Your task to perform on an android device: turn off improve location accuracy Image 0: 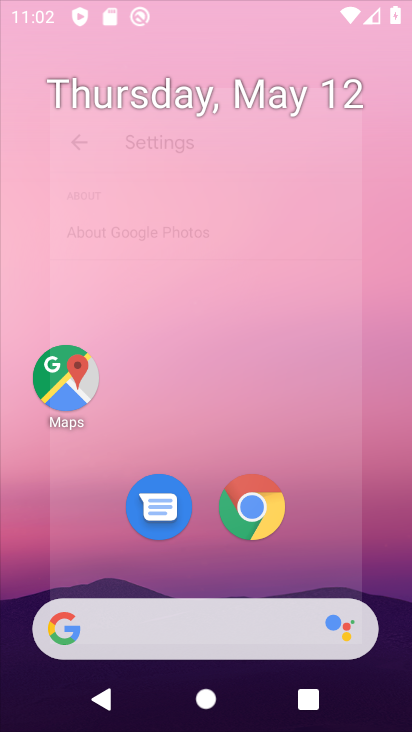
Step 0: drag from (160, 599) to (370, 53)
Your task to perform on an android device: turn off improve location accuracy Image 1: 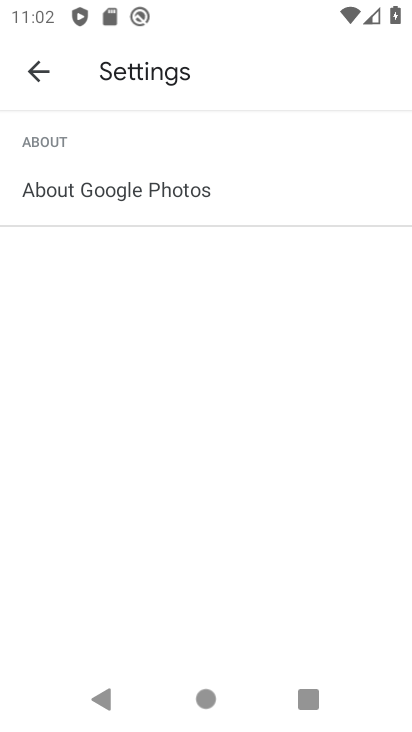
Step 1: press home button
Your task to perform on an android device: turn off improve location accuracy Image 2: 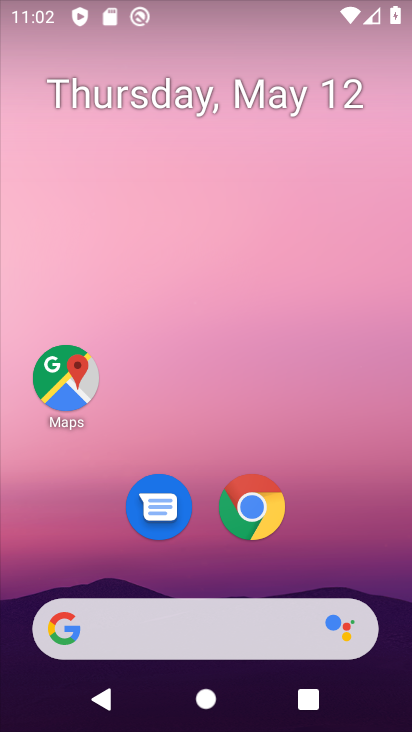
Step 2: drag from (139, 584) to (262, 44)
Your task to perform on an android device: turn off improve location accuracy Image 3: 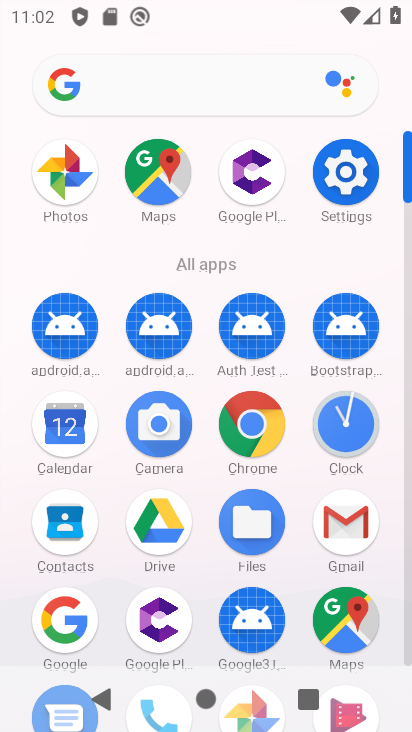
Step 3: drag from (197, 643) to (252, 306)
Your task to perform on an android device: turn off improve location accuracy Image 4: 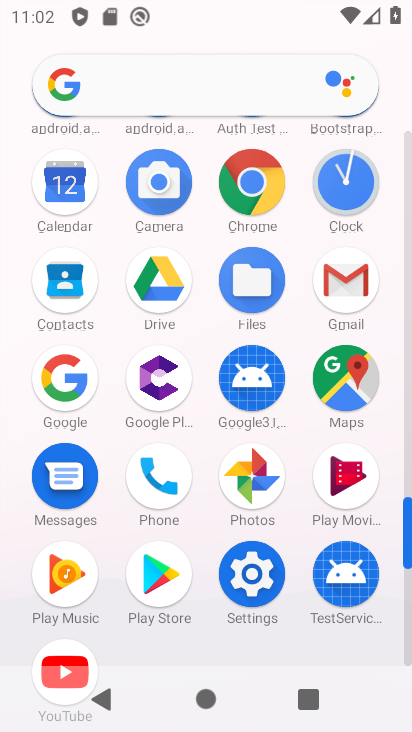
Step 4: click (259, 579)
Your task to perform on an android device: turn off improve location accuracy Image 5: 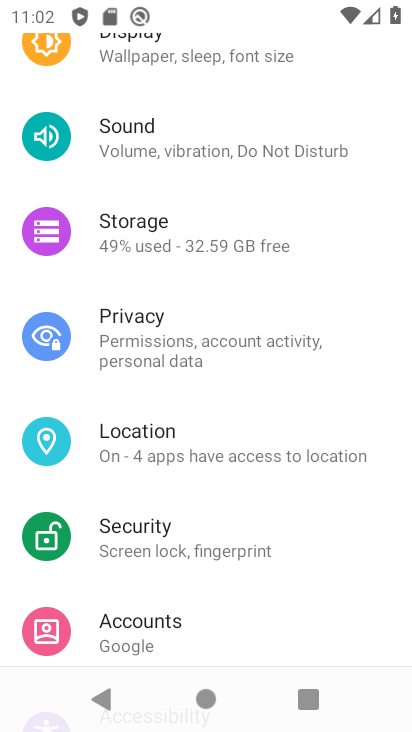
Step 5: click (172, 450)
Your task to perform on an android device: turn off improve location accuracy Image 6: 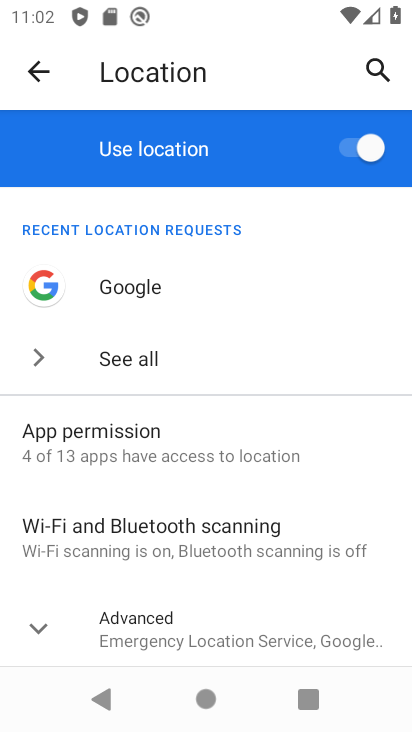
Step 6: drag from (224, 650) to (288, 357)
Your task to perform on an android device: turn off improve location accuracy Image 7: 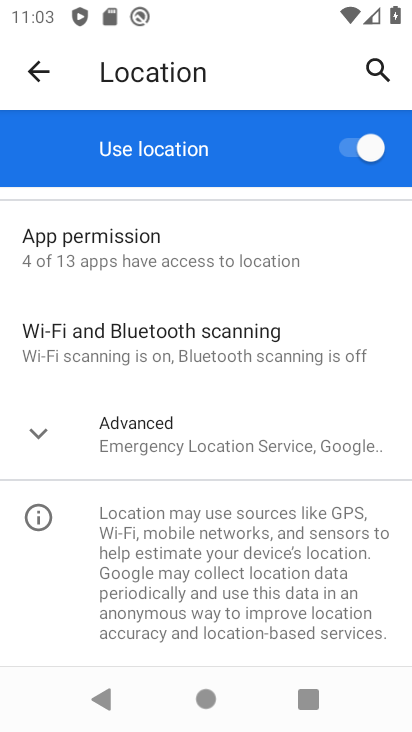
Step 7: click (189, 427)
Your task to perform on an android device: turn off improve location accuracy Image 8: 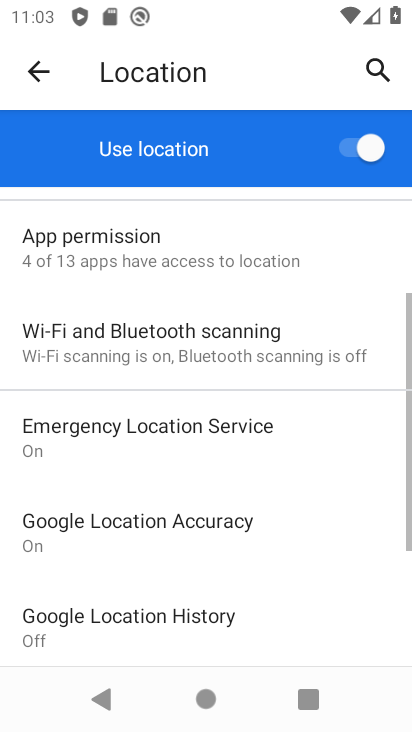
Step 8: drag from (196, 583) to (265, 338)
Your task to perform on an android device: turn off improve location accuracy Image 9: 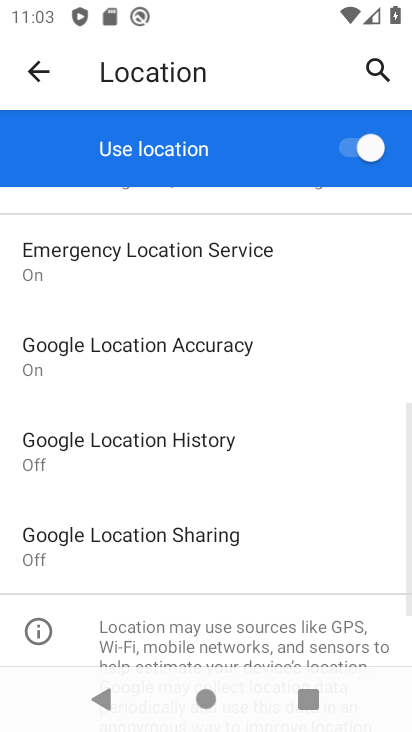
Step 9: click (228, 347)
Your task to perform on an android device: turn off improve location accuracy Image 10: 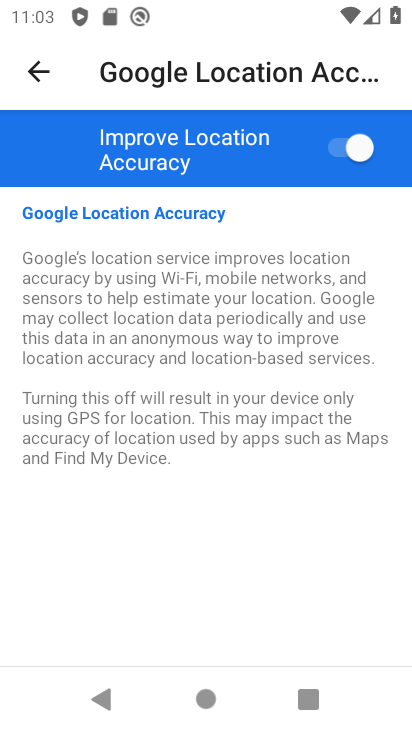
Step 10: click (338, 152)
Your task to perform on an android device: turn off improve location accuracy Image 11: 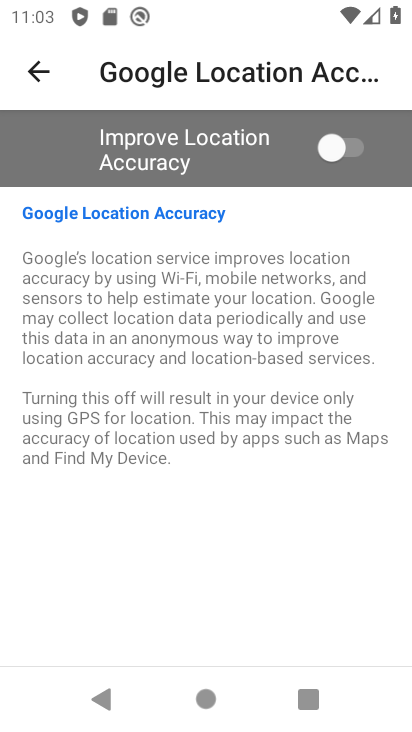
Step 11: task complete